Your task to perform on an android device: Open Google Maps and go to "Timeline" Image 0: 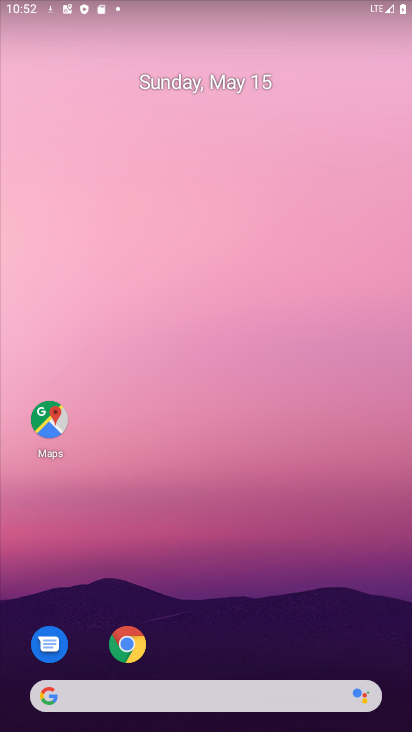
Step 0: press home button
Your task to perform on an android device: Open Google Maps and go to "Timeline" Image 1: 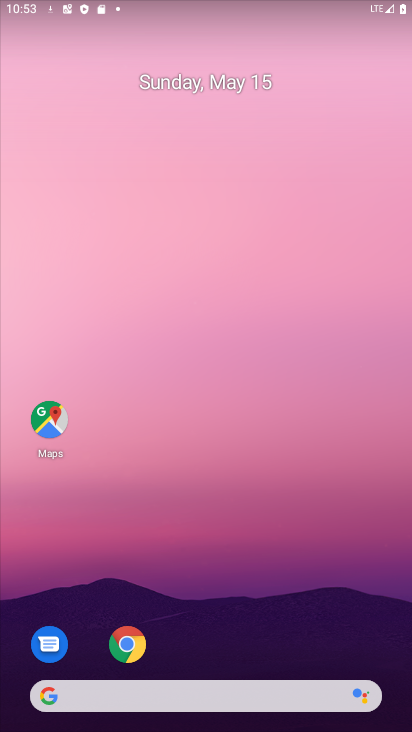
Step 1: drag from (276, 729) to (268, 310)
Your task to perform on an android device: Open Google Maps and go to "Timeline" Image 2: 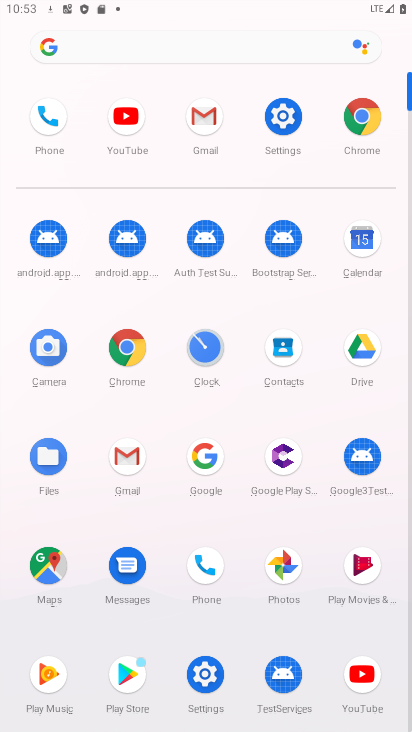
Step 2: click (54, 572)
Your task to perform on an android device: Open Google Maps and go to "Timeline" Image 3: 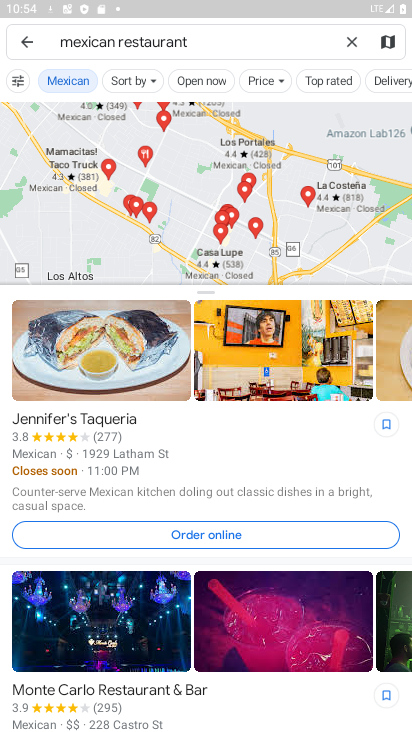
Step 3: click (29, 48)
Your task to perform on an android device: Open Google Maps and go to "Timeline" Image 4: 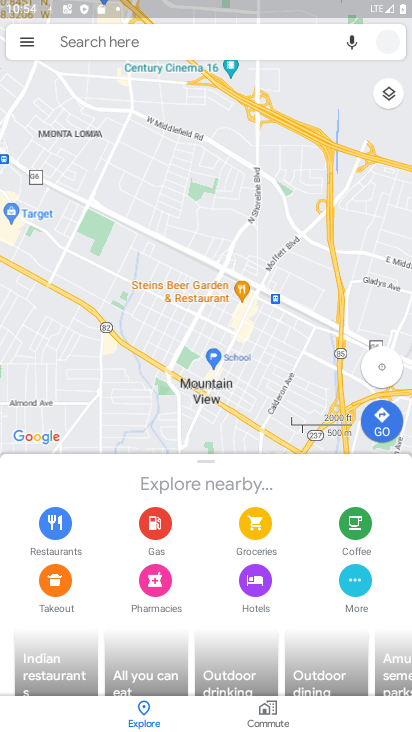
Step 4: click (25, 52)
Your task to perform on an android device: Open Google Maps and go to "Timeline" Image 5: 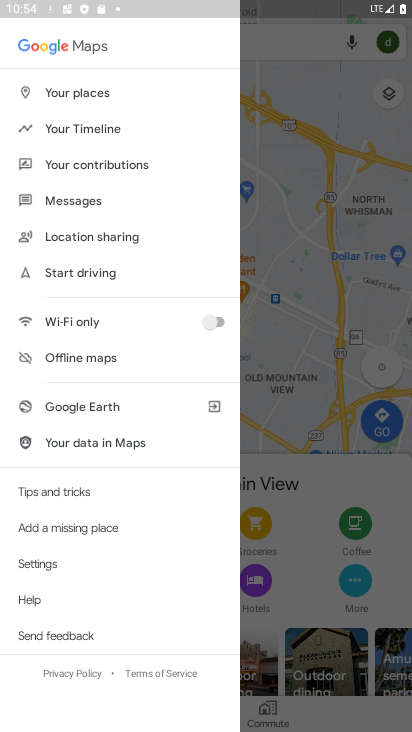
Step 5: click (93, 129)
Your task to perform on an android device: Open Google Maps and go to "Timeline" Image 6: 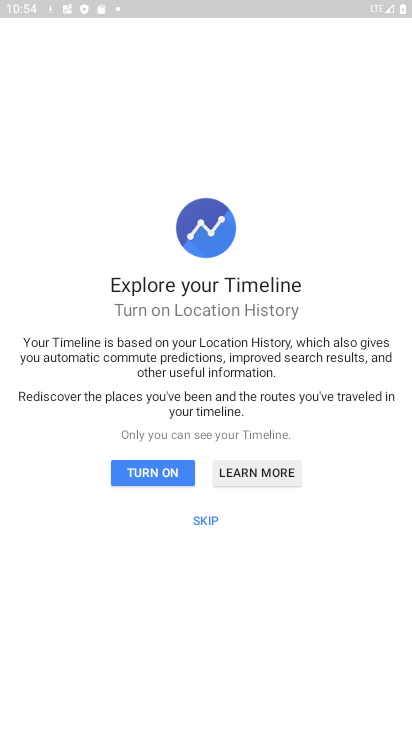
Step 6: click (194, 516)
Your task to perform on an android device: Open Google Maps and go to "Timeline" Image 7: 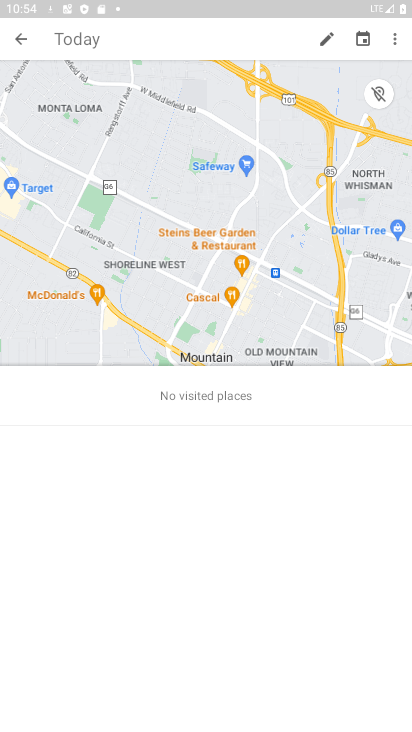
Step 7: task complete